Your task to perform on an android device: open app "Viber Messenger" (install if not already installed) Image 0: 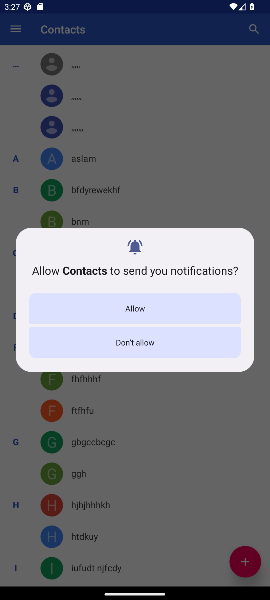
Step 0: press home button
Your task to perform on an android device: open app "Viber Messenger" (install if not already installed) Image 1: 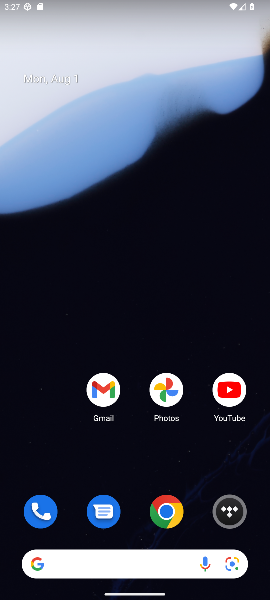
Step 1: drag from (141, 449) to (153, 73)
Your task to perform on an android device: open app "Viber Messenger" (install if not already installed) Image 2: 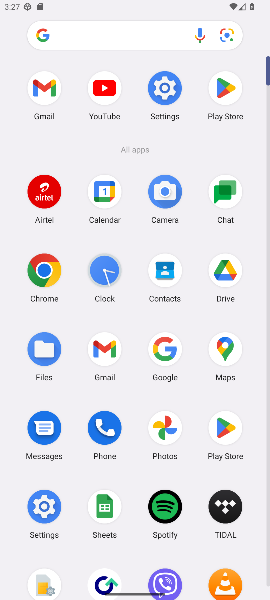
Step 2: click (213, 90)
Your task to perform on an android device: open app "Viber Messenger" (install if not already installed) Image 3: 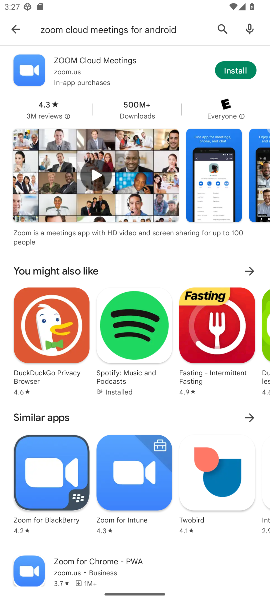
Step 3: click (19, 31)
Your task to perform on an android device: open app "Viber Messenger" (install if not already installed) Image 4: 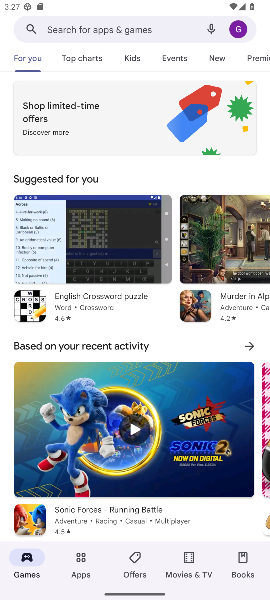
Step 4: click (112, 24)
Your task to perform on an android device: open app "Viber Messenger" (install if not already installed) Image 5: 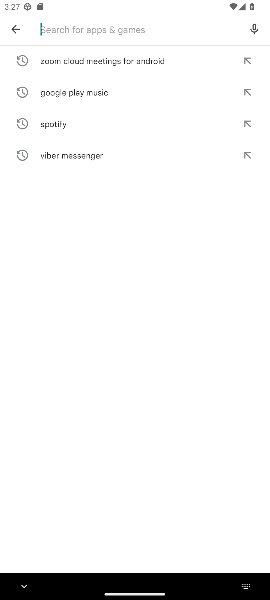
Step 5: type "viber manager"
Your task to perform on an android device: open app "Viber Messenger" (install if not already installed) Image 6: 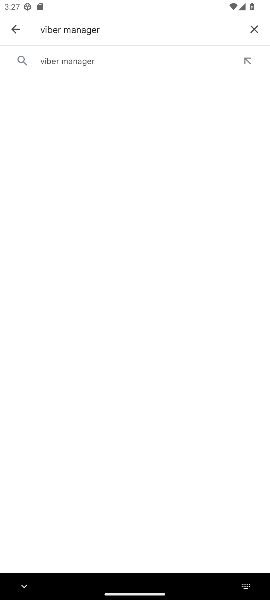
Step 6: click (64, 60)
Your task to perform on an android device: open app "Viber Messenger" (install if not already installed) Image 7: 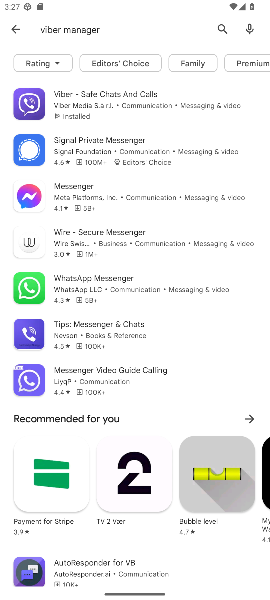
Step 7: click (73, 112)
Your task to perform on an android device: open app "Viber Messenger" (install if not already installed) Image 8: 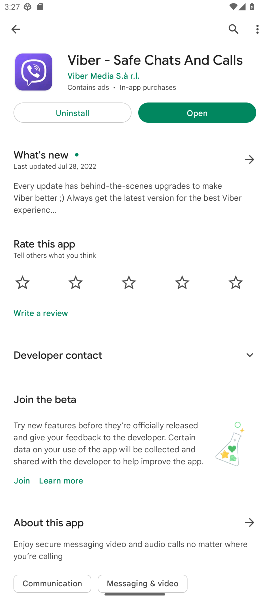
Step 8: click (174, 112)
Your task to perform on an android device: open app "Viber Messenger" (install if not already installed) Image 9: 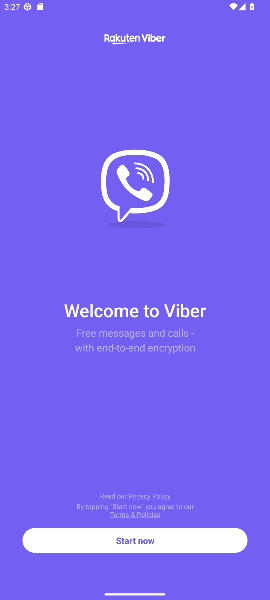
Step 9: task complete